Your task to perform on an android device: toggle translation in the chrome app Image 0: 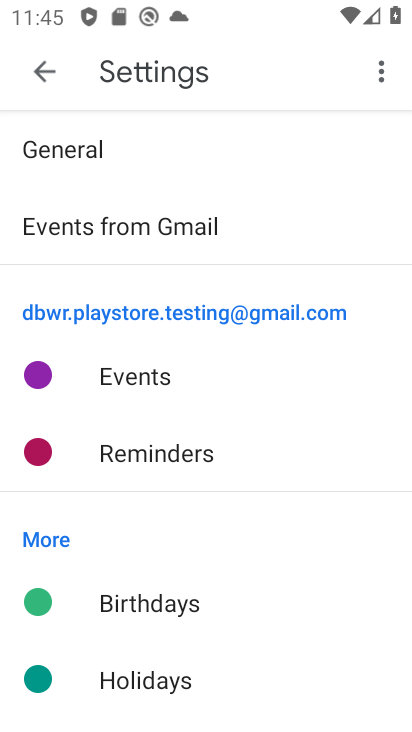
Step 0: press home button
Your task to perform on an android device: toggle translation in the chrome app Image 1: 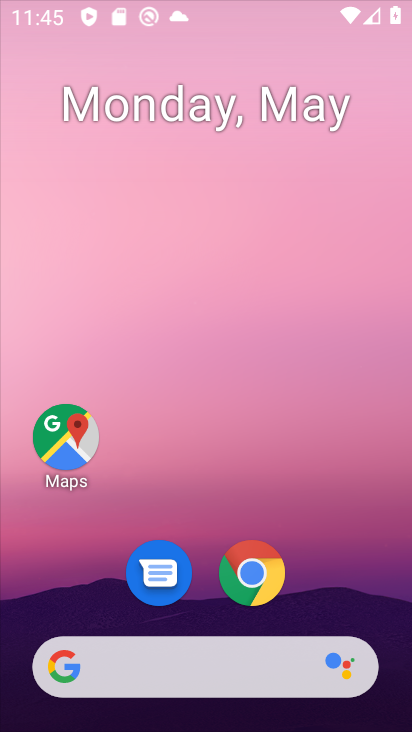
Step 1: drag from (267, 539) to (239, 63)
Your task to perform on an android device: toggle translation in the chrome app Image 2: 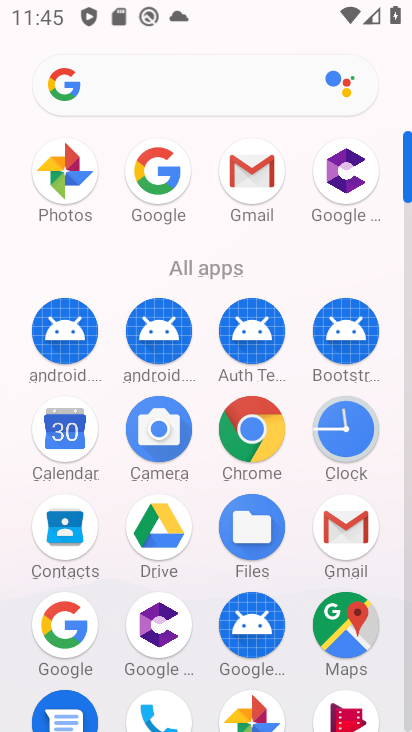
Step 2: click (251, 450)
Your task to perform on an android device: toggle translation in the chrome app Image 3: 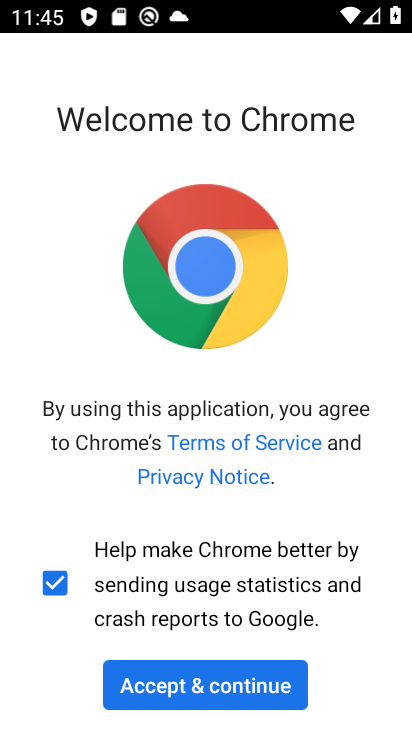
Step 3: click (232, 696)
Your task to perform on an android device: toggle translation in the chrome app Image 4: 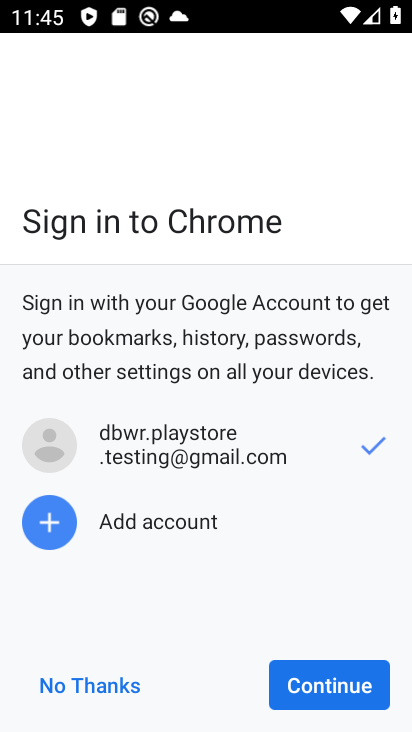
Step 4: click (117, 692)
Your task to perform on an android device: toggle translation in the chrome app Image 5: 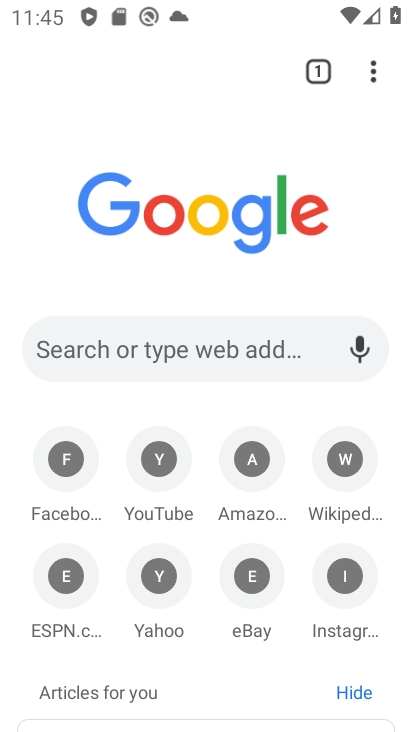
Step 5: drag from (366, 79) to (163, 605)
Your task to perform on an android device: toggle translation in the chrome app Image 6: 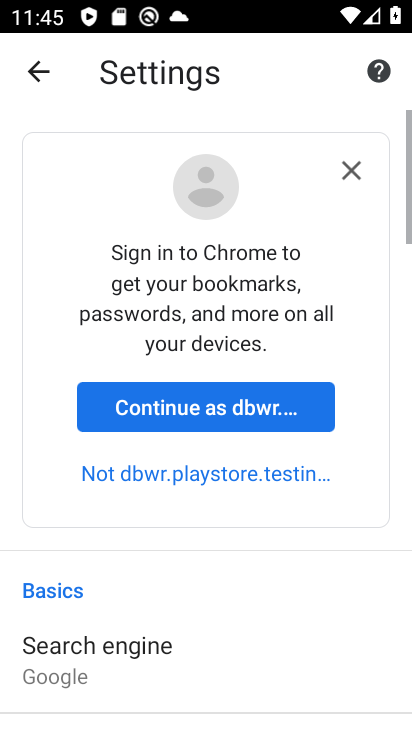
Step 6: drag from (159, 604) to (248, 154)
Your task to perform on an android device: toggle translation in the chrome app Image 7: 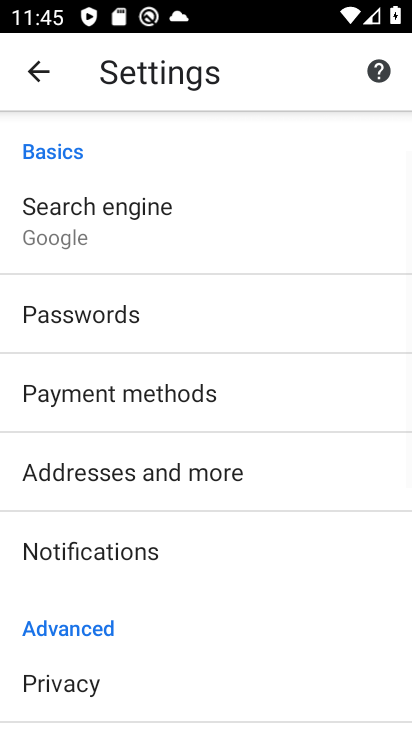
Step 7: drag from (163, 616) to (227, 155)
Your task to perform on an android device: toggle translation in the chrome app Image 8: 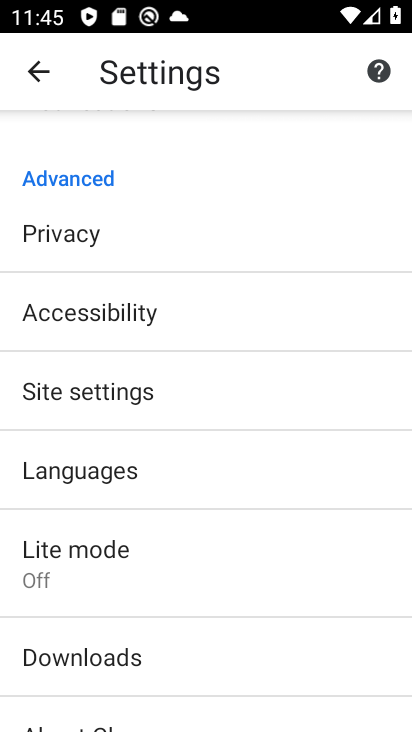
Step 8: click (103, 476)
Your task to perform on an android device: toggle translation in the chrome app Image 9: 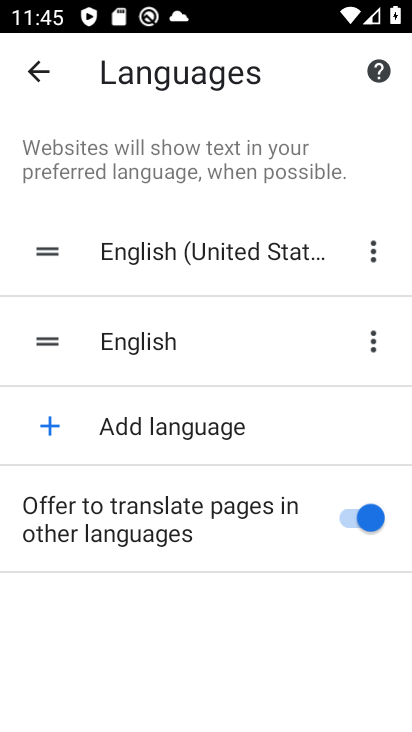
Step 9: click (350, 519)
Your task to perform on an android device: toggle translation in the chrome app Image 10: 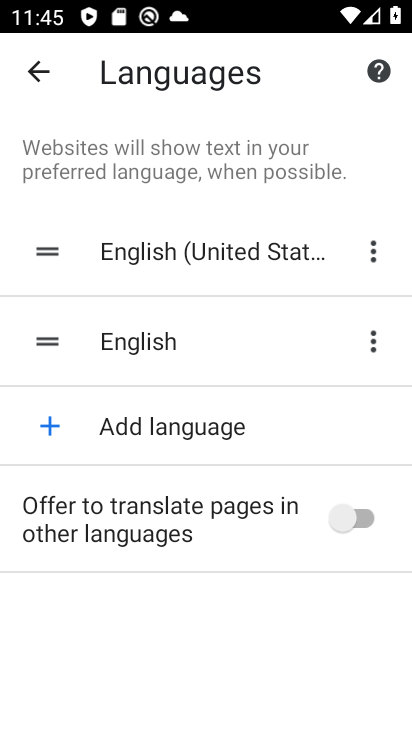
Step 10: task complete